Your task to perform on an android device: turn pop-ups on in chrome Image 0: 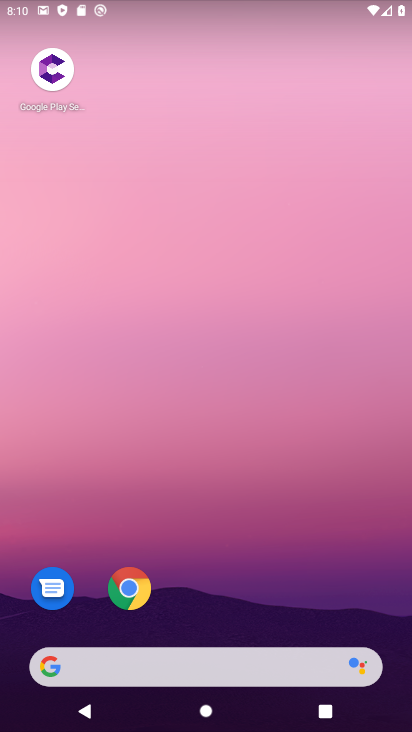
Step 0: click (136, 589)
Your task to perform on an android device: turn pop-ups on in chrome Image 1: 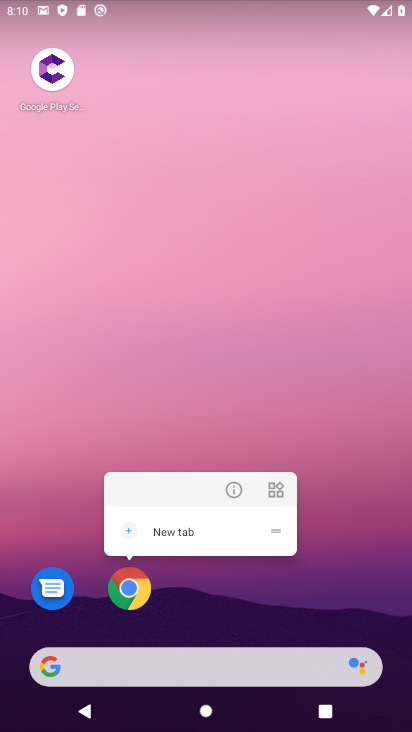
Step 1: click (136, 588)
Your task to perform on an android device: turn pop-ups on in chrome Image 2: 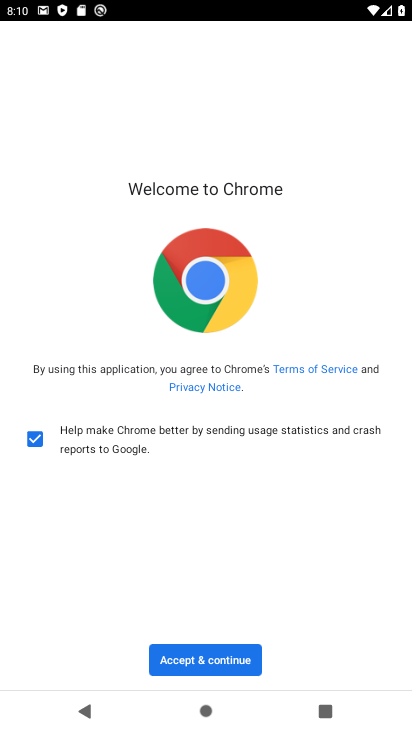
Step 2: click (184, 664)
Your task to perform on an android device: turn pop-ups on in chrome Image 3: 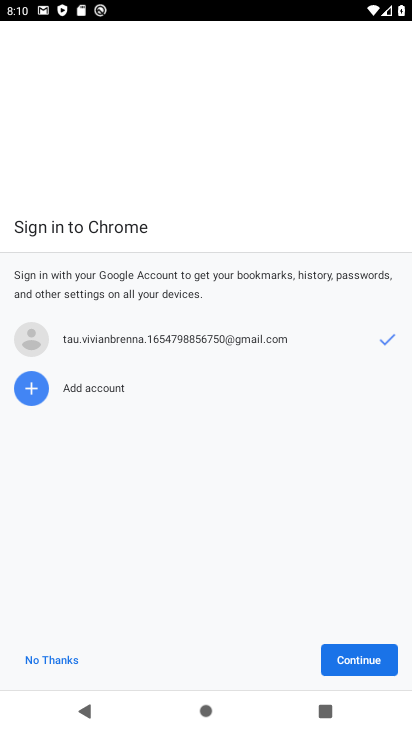
Step 3: click (370, 672)
Your task to perform on an android device: turn pop-ups on in chrome Image 4: 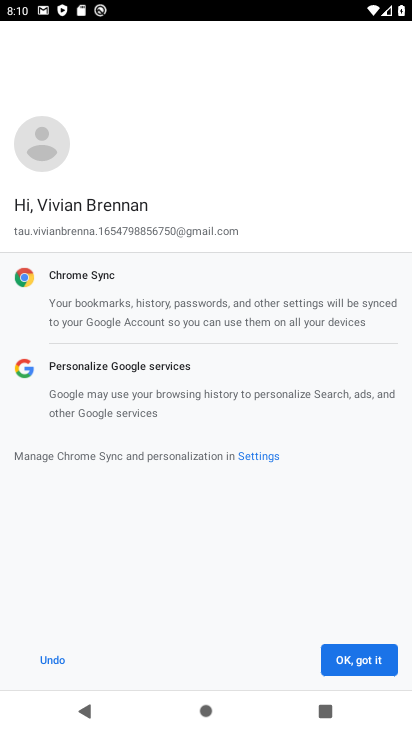
Step 4: click (375, 663)
Your task to perform on an android device: turn pop-ups on in chrome Image 5: 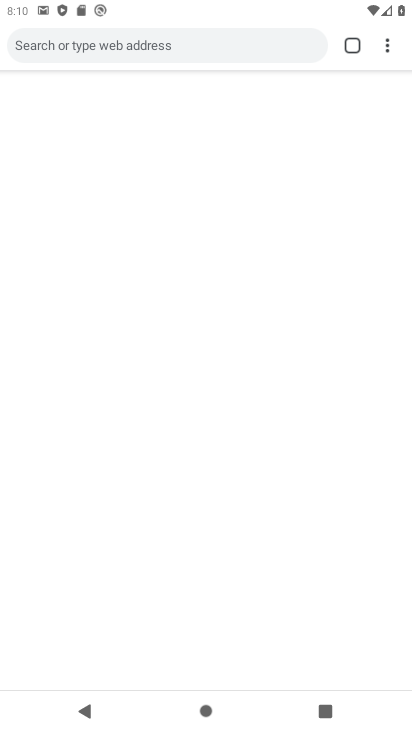
Step 5: drag from (389, 42) to (229, 382)
Your task to perform on an android device: turn pop-ups on in chrome Image 6: 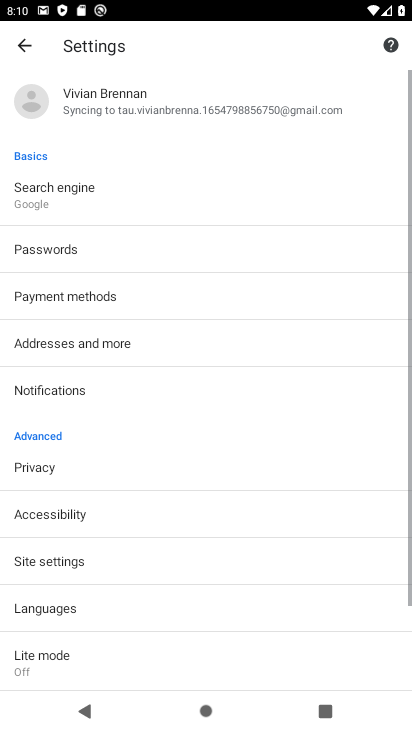
Step 6: click (61, 568)
Your task to perform on an android device: turn pop-ups on in chrome Image 7: 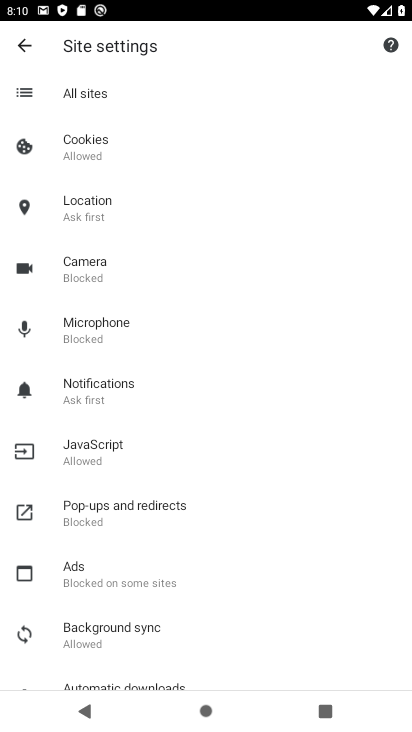
Step 7: click (114, 509)
Your task to perform on an android device: turn pop-ups on in chrome Image 8: 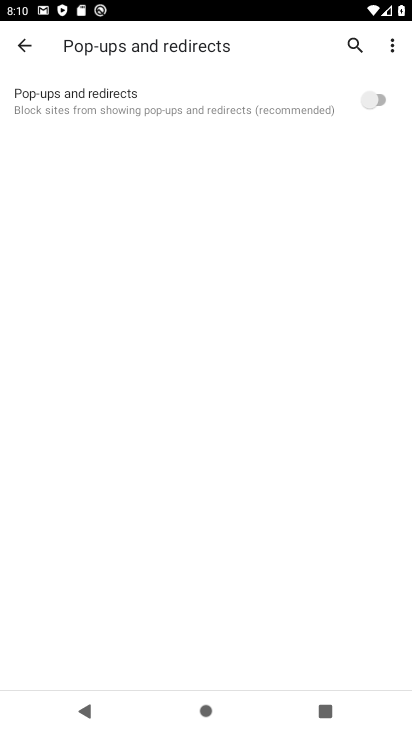
Step 8: click (373, 95)
Your task to perform on an android device: turn pop-ups on in chrome Image 9: 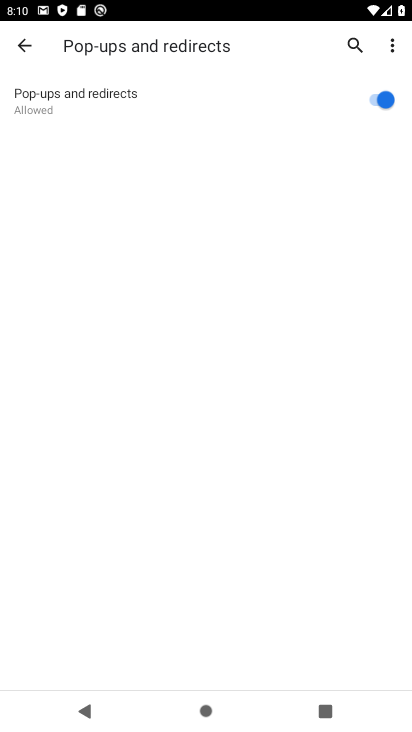
Step 9: task complete